Your task to perform on an android device: Open ESPN.com Image 0: 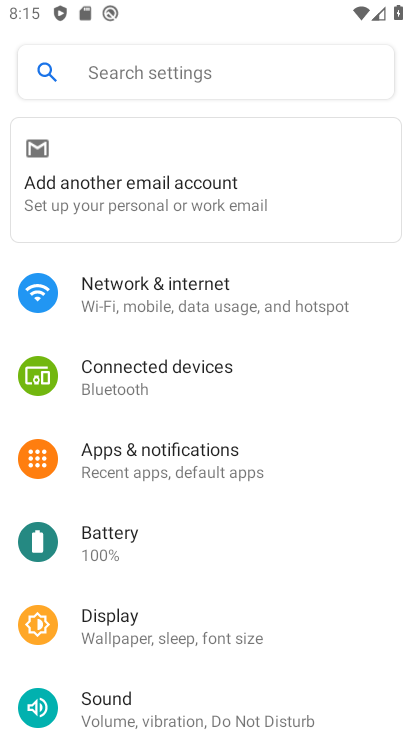
Step 0: press home button
Your task to perform on an android device: Open ESPN.com Image 1: 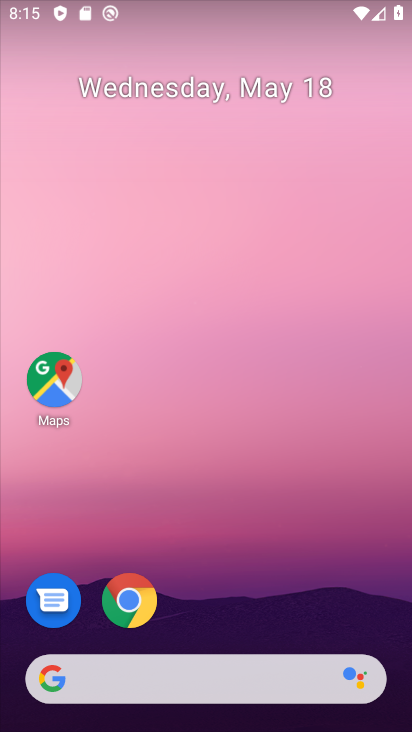
Step 1: click (127, 597)
Your task to perform on an android device: Open ESPN.com Image 2: 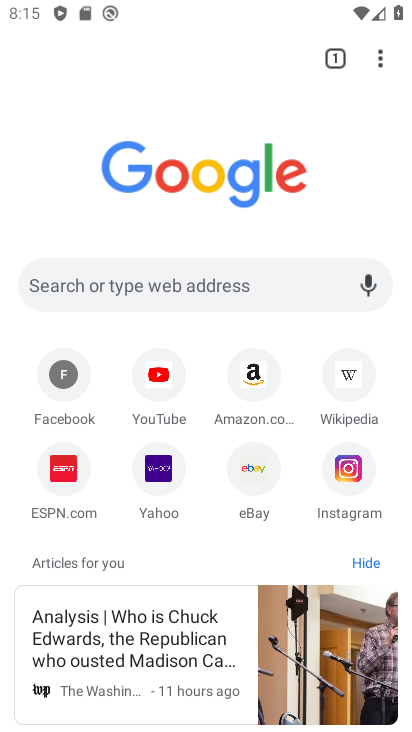
Step 2: click (59, 469)
Your task to perform on an android device: Open ESPN.com Image 3: 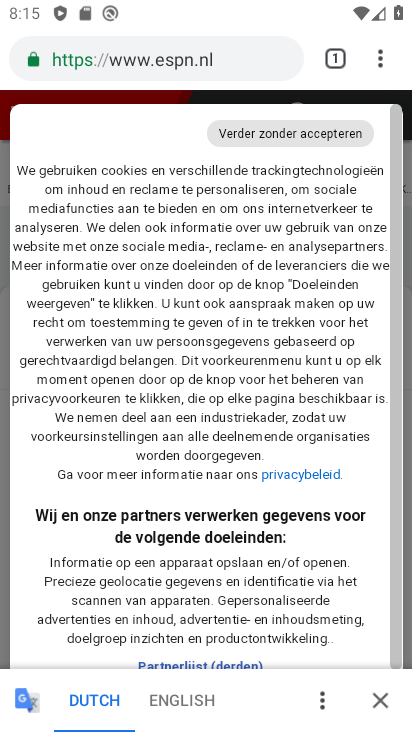
Step 3: task complete